Your task to perform on an android device: Open eBay Image 0: 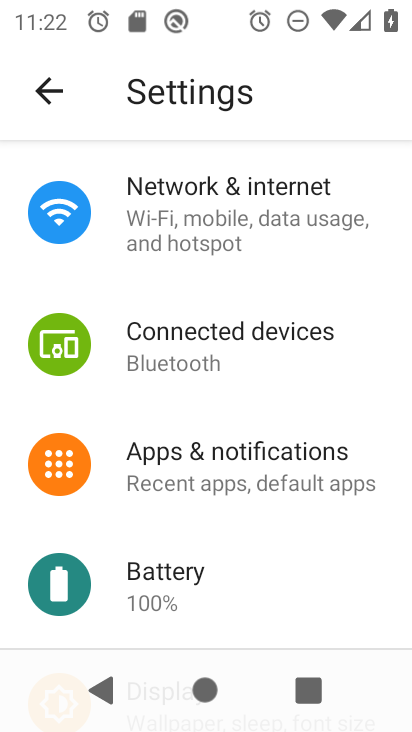
Step 0: press back button
Your task to perform on an android device: Open eBay Image 1: 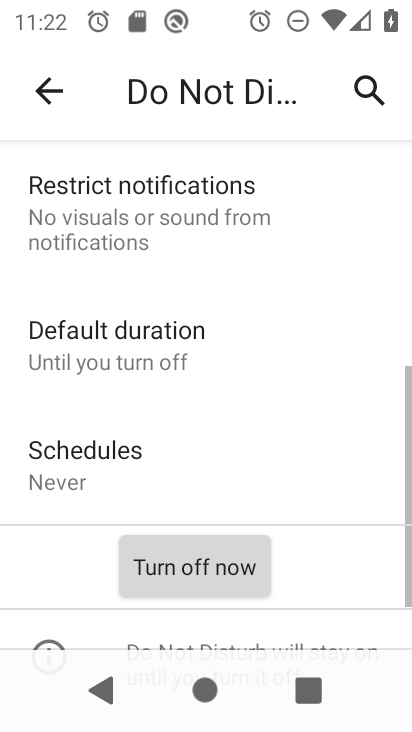
Step 1: press back button
Your task to perform on an android device: Open eBay Image 2: 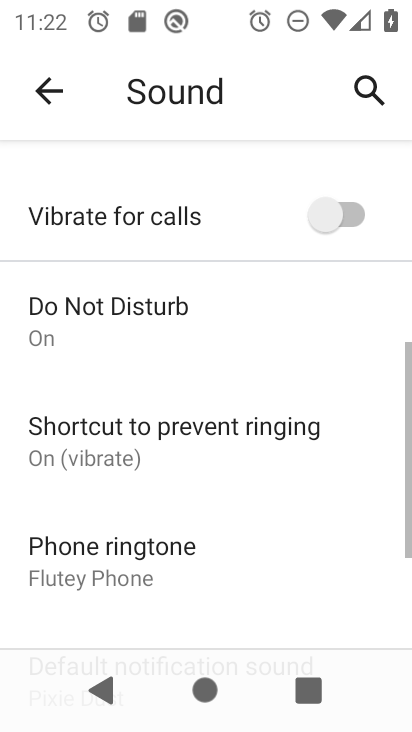
Step 2: press home button
Your task to perform on an android device: Open eBay Image 3: 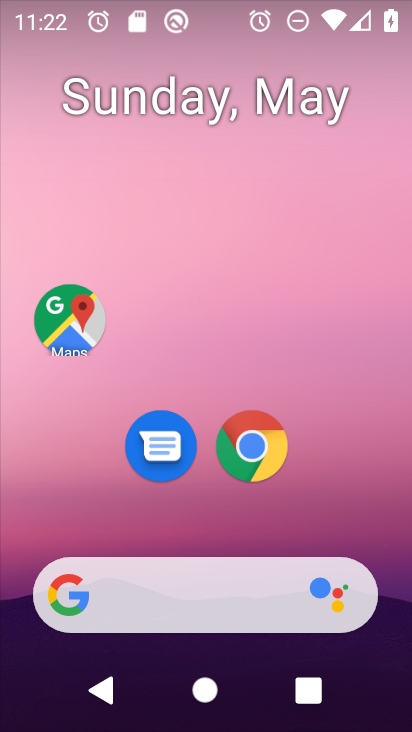
Step 3: click (239, 442)
Your task to perform on an android device: Open eBay Image 4: 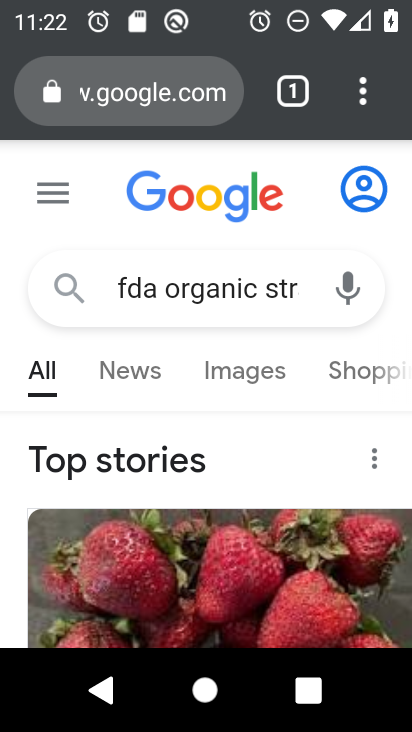
Step 4: click (155, 93)
Your task to perform on an android device: Open eBay Image 5: 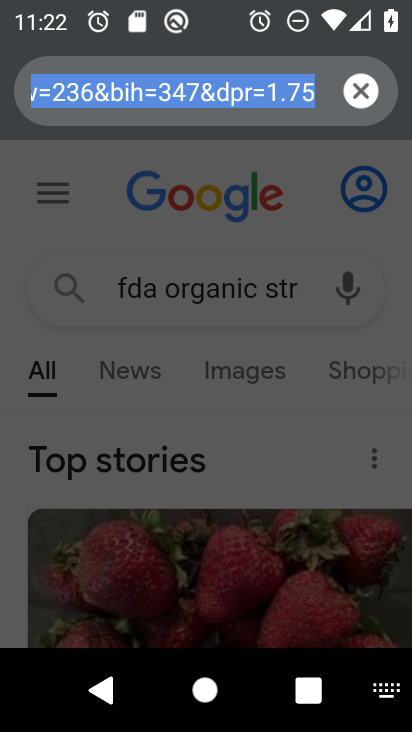
Step 5: click (367, 89)
Your task to perform on an android device: Open eBay Image 6: 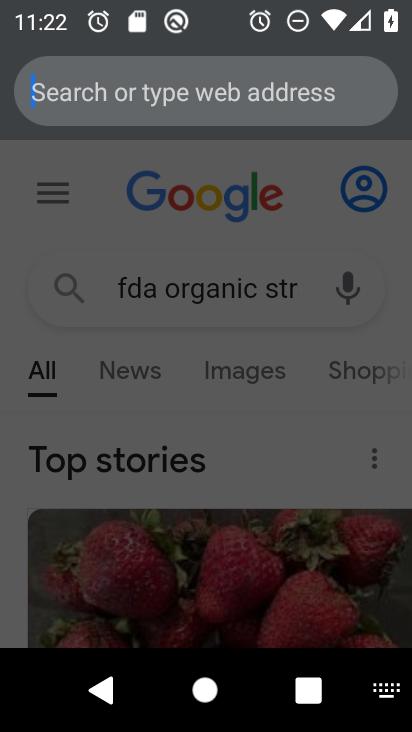
Step 6: type " eBay"
Your task to perform on an android device: Open eBay Image 7: 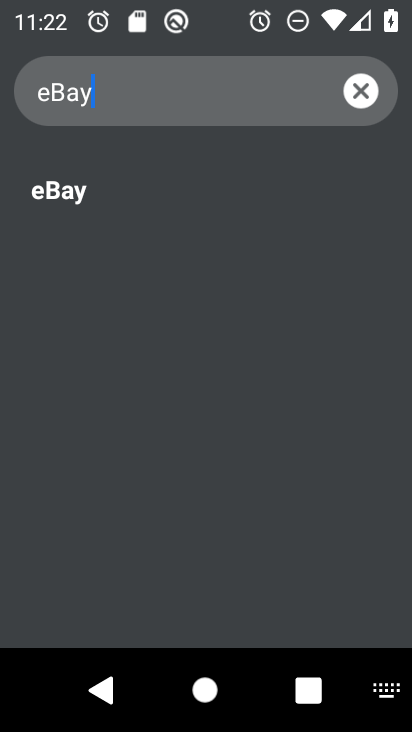
Step 7: type ""
Your task to perform on an android device: Open eBay Image 8: 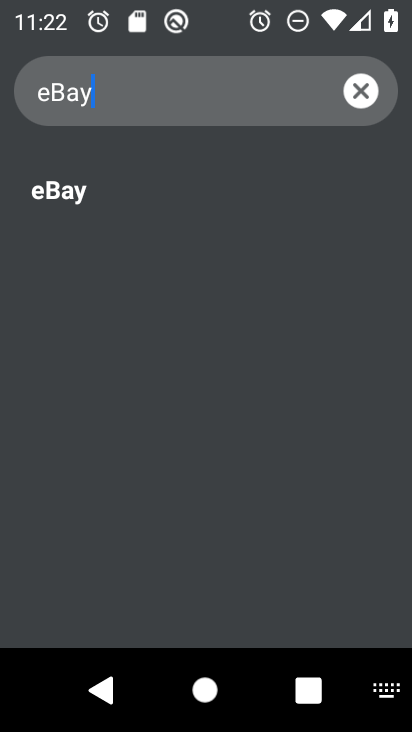
Step 8: click (130, 197)
Your task to perform on an android device: Open eBay Image 9: 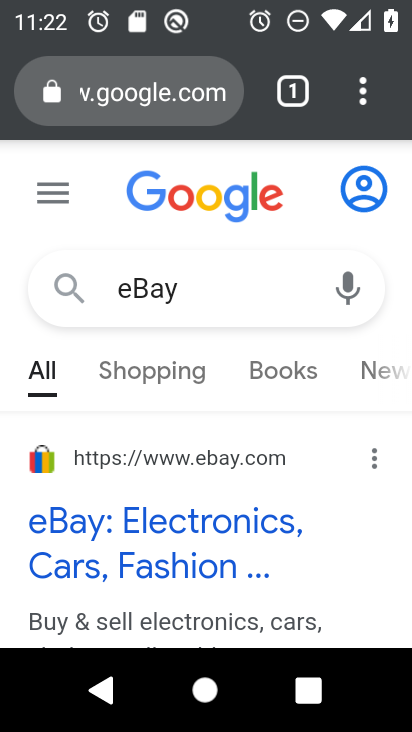
Step 9: click (120, 526)
Your task to perform on an android device: Open eBay Image 10: 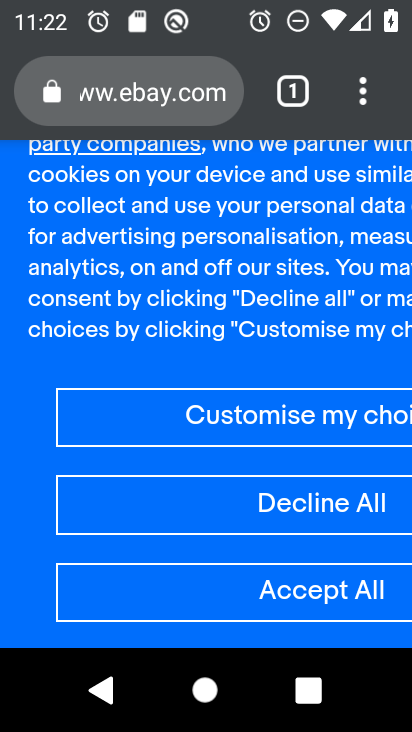
Step 10: task complete